Your task to perform on an android device: change keyboard looks Image 0: 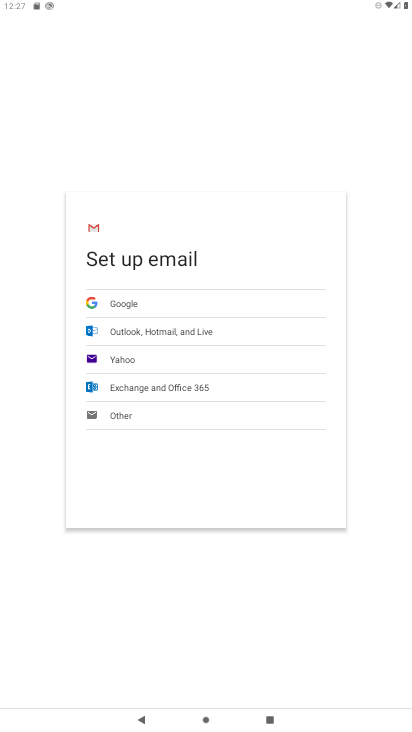
Step 0: press home button
Your task to perform on an android device: change keyboard looks Image 1: 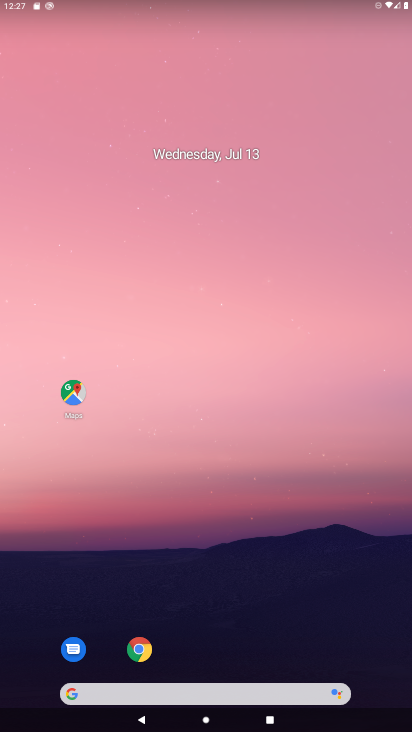
Step 1: drag from (349, 633) to (309, 91)
Your task to perform on an android device: change keyboard looks Image 2: 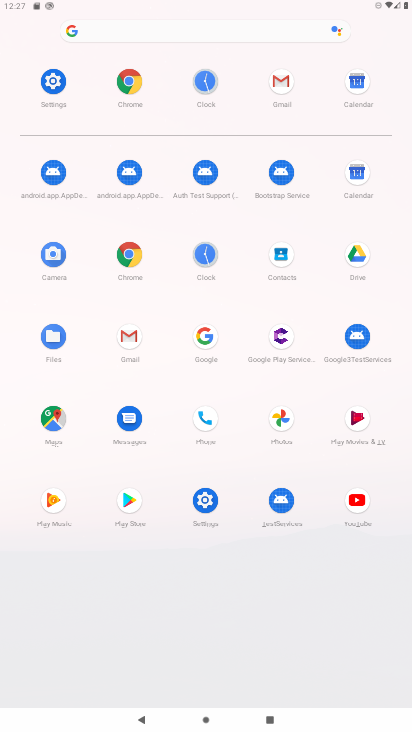
Step 2: click (203, 502)
Your task to perform on an android device: change keyboard looks Image 3: 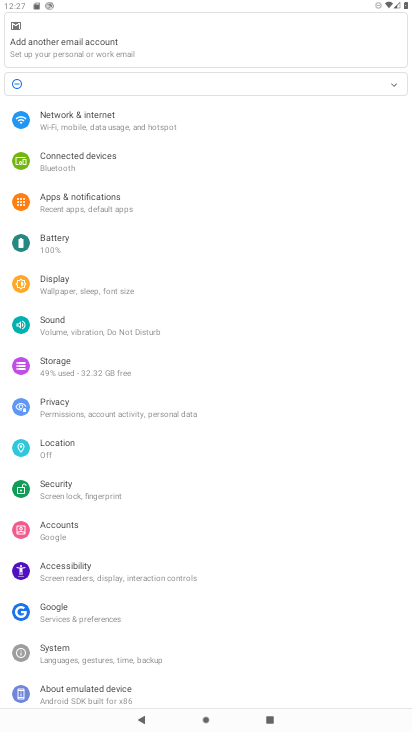
Step 3: click (71, 645)
Your task to perform on an android device: change keyboard looks Image 4: 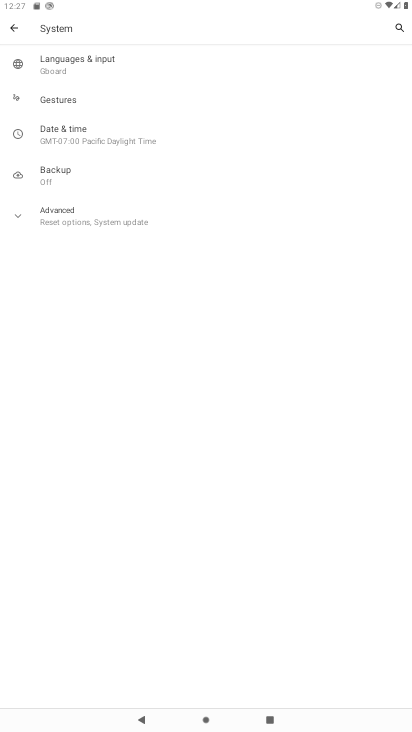
Step 4: click (60, 62)
Your task to perform on an android device: change keyboard looks Image 5: 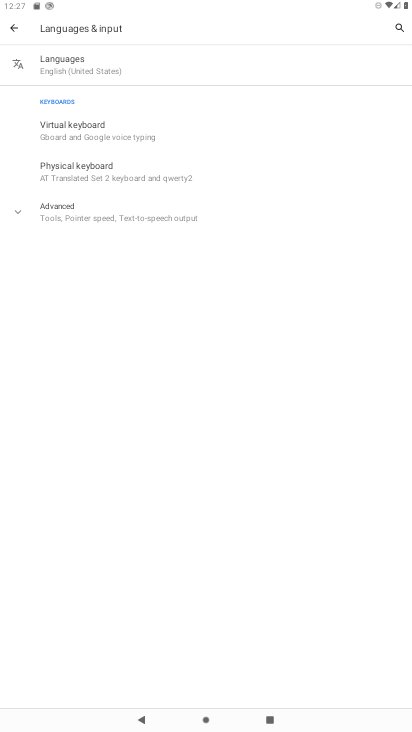
Step 5: click (64, 166)
Your task to perform on an android device: change keyboard looks Image 6: 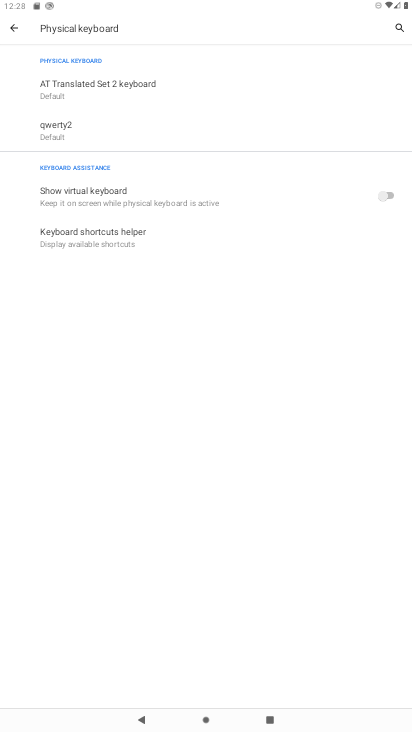
Step 6: click (60, 130)
Your task to perform on an android device: change keyboard looks Image 7: 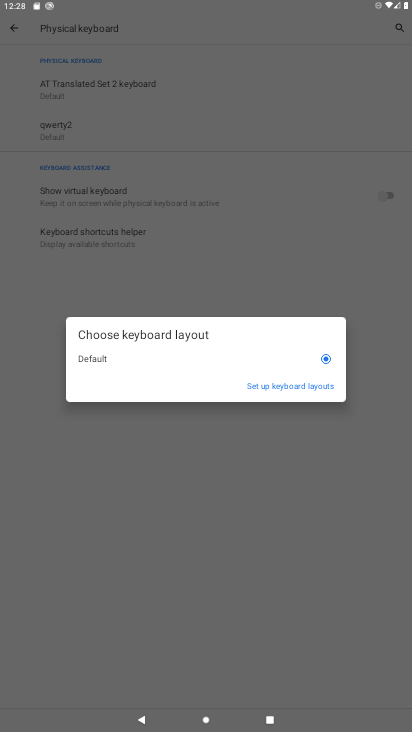
Step 7: click (272, 389)
Your task to perform on an android device: change keyboard looks Image 8: 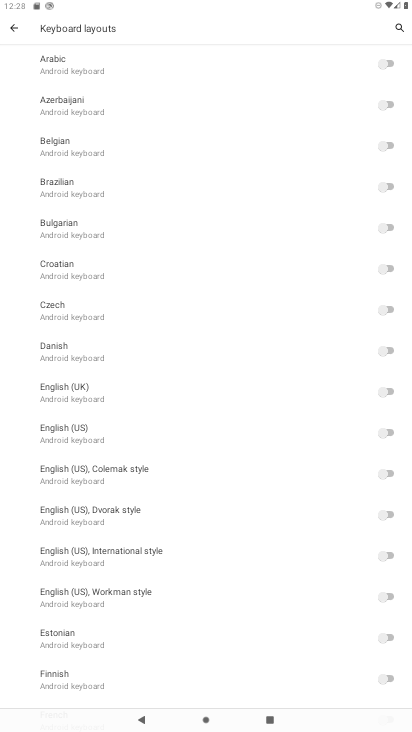
Step 8: click (66, 424)
Your task to perform on an android device: change keyboard looks Image 9: 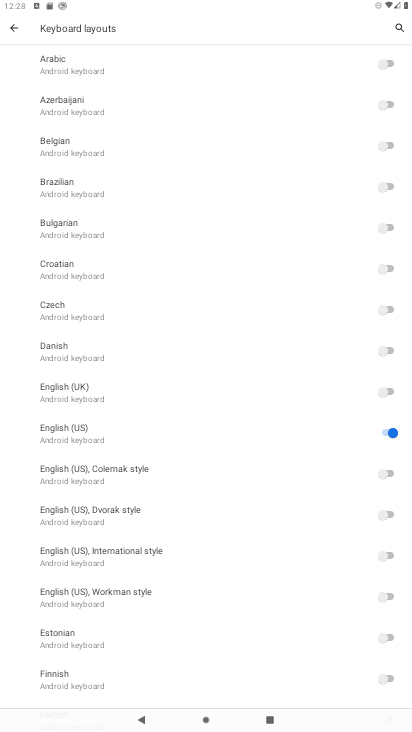
Step 9: task complete